Your task to perform on an android device: see tabs open on other devices in the chrome app Image 0: 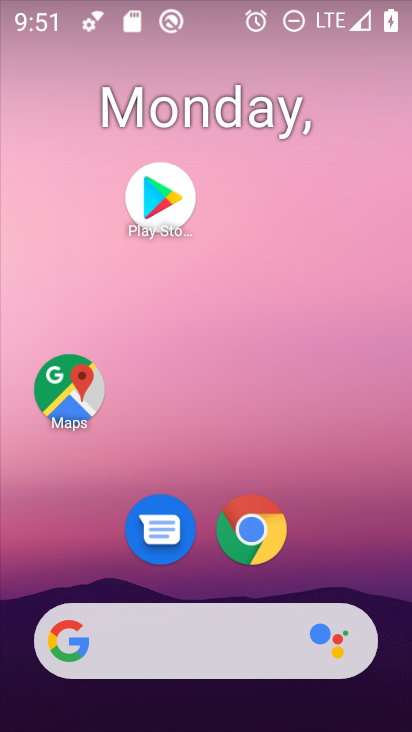
Step 0: click (254, 523)
Your task to perform on an android device: see tabs open on other devices in the chrome app Image 1: 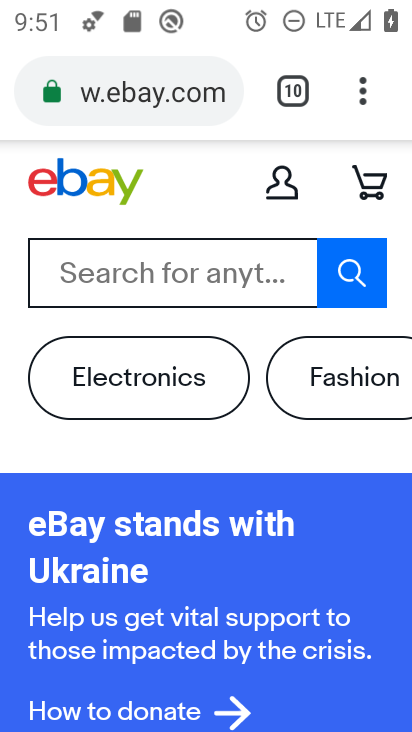
Step 1: click (363, 90)
Your task to perform on an android device: see tabs open on other devices in the chrome app Image 2: 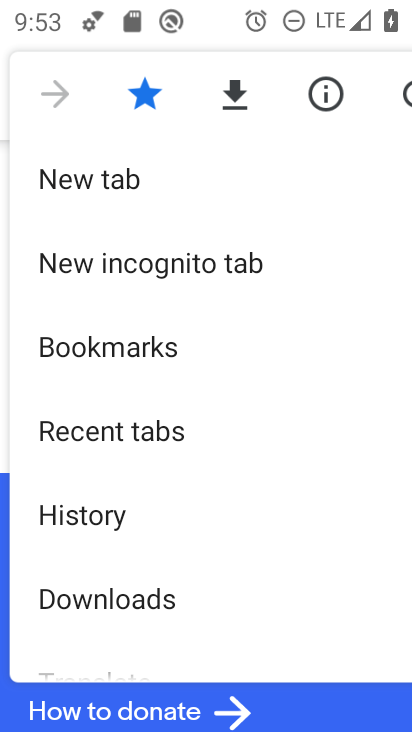
Step 2: drag from (257, 423) to (202, 138)
Your task to perform on an android device: see tabs open on other devices in the chrome app Image 3: 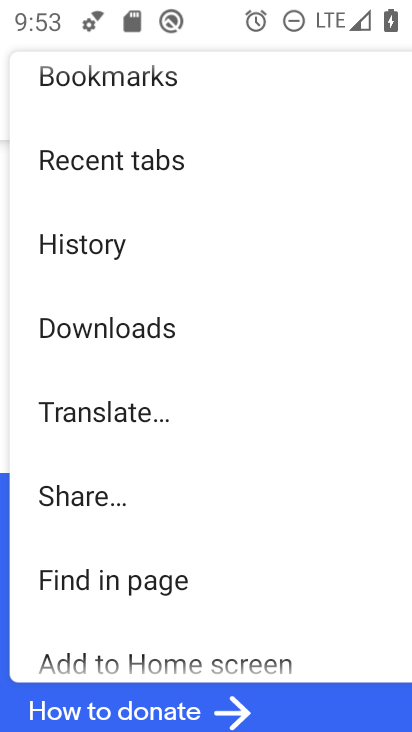
Step 3: click (112, 151)
Your task to perform on an android device: see tabs open on other devices in the chrome app Image 4: 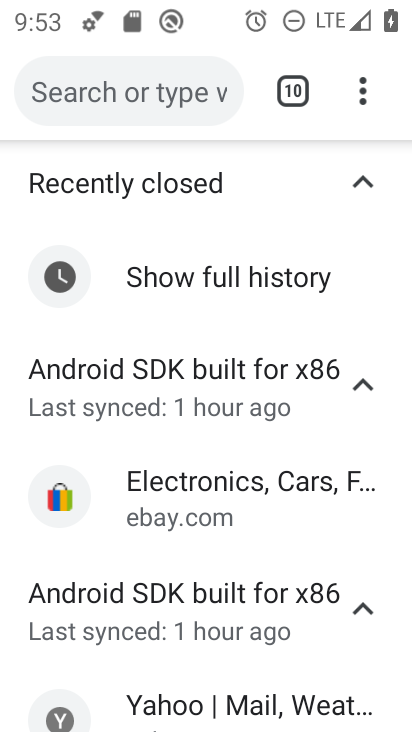
Step 4: task complete